Your task to perform on an android device: turn off picture-in-picture Image 0: 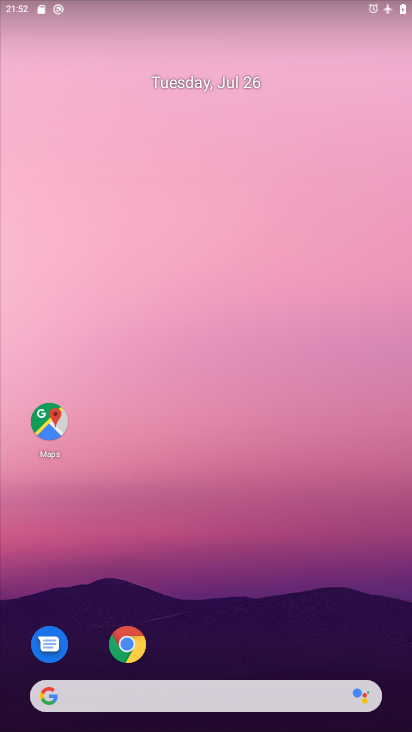
Step 0: drag from (228, 483) to (228, 97)
Your task to perform on an android device: turn off picture-in-picture Image 1: 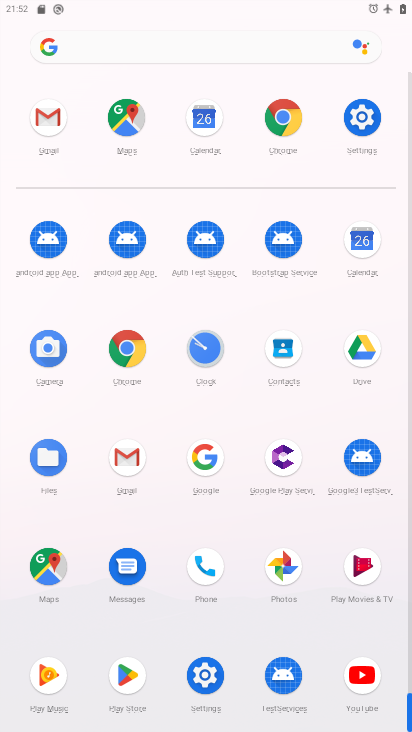
Step 1: click (363, 103)
Your task to perform on an android device: turn off picture-in-picture Image 2: 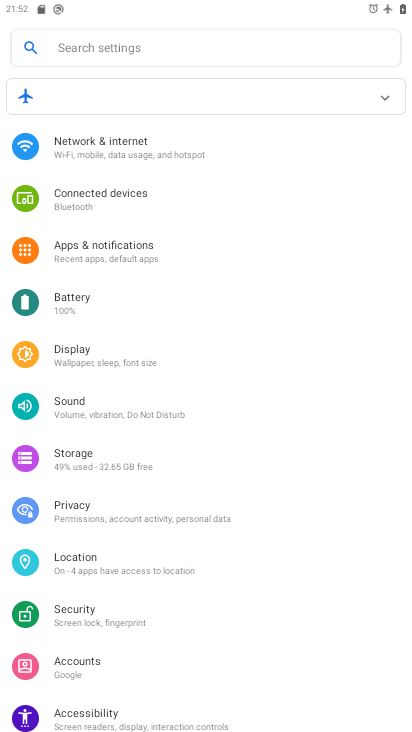
Step 2: click (112, 237)
Your task to perform on an android device: turn off picture-in-picture Image 3: 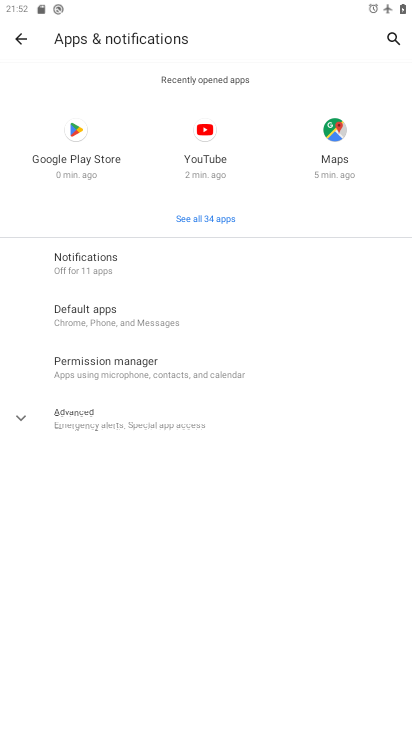
Step 3: click (142, 425)
Your task to perform on an android device: turn off picture-in-picture Image 4: 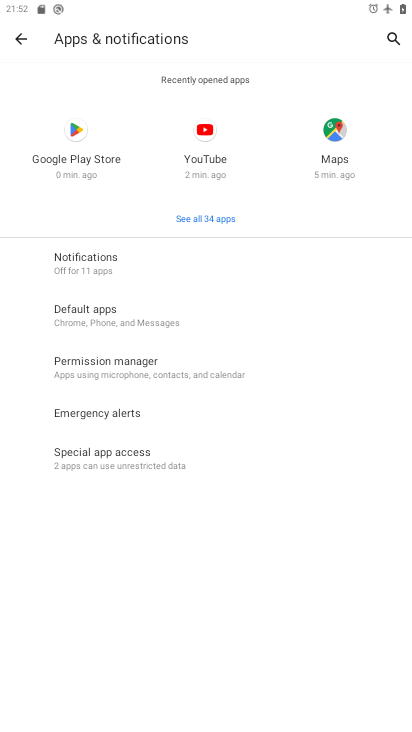
Step 4: click (150, 443)
Your task to perform on an android device: turn off picture-in-picture Image 5: 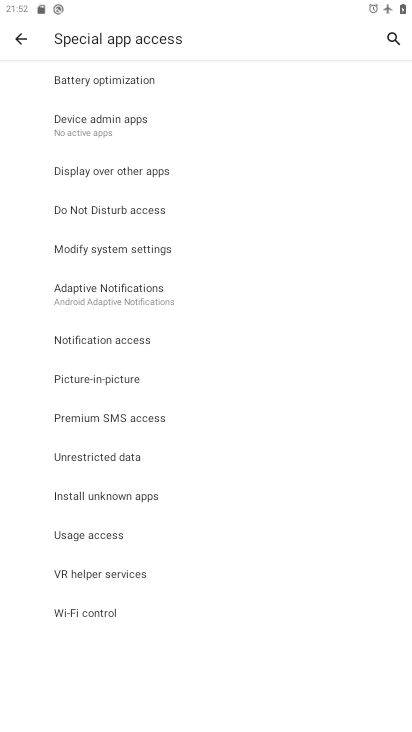
Step 5: click (127, 382)
Your task to perform on an android device: turn off picture-in-picture Image 6: 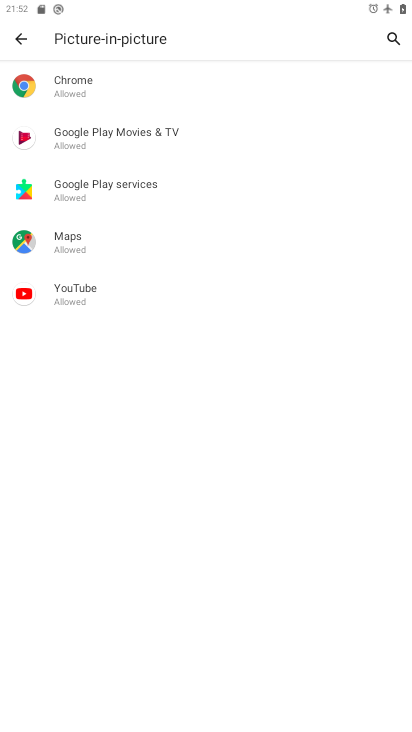
Step 6: click (107, 294)
Your task to perform on an android device: turn off picture-in-picture Image 7: 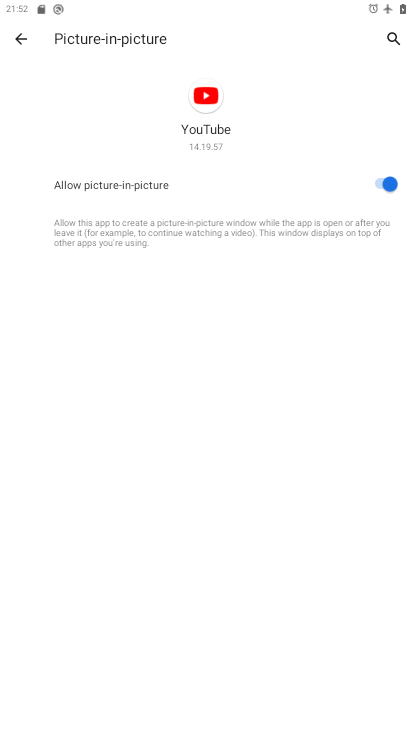
Step 7: click (377, 176)
Your task to perform on an android device: turn off picture-in-picture Image 8: 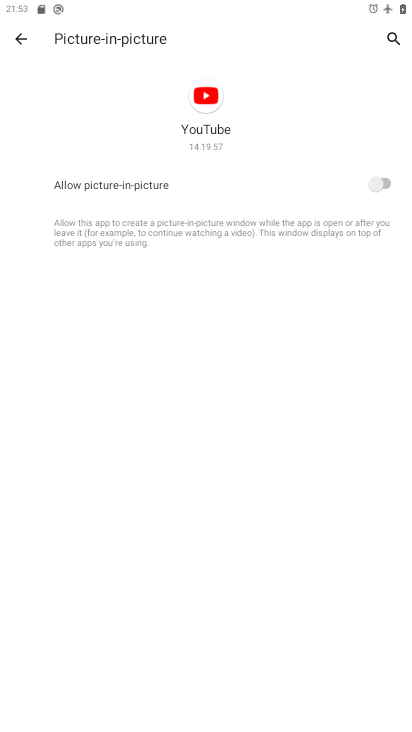
Step 8: task complete